Your task to perform on an android device: open app "Viber Messenger" (install if not already installed) and go to login screen Image 0: 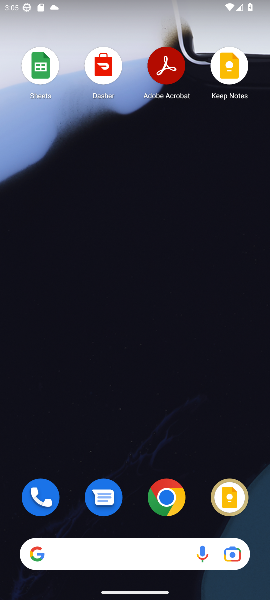
Step 0: drag from (86, 347) to (74, 97)
Your task to perform on an android device: open app "Viber Messenger" (install if not already installed) and go to login screen Image 1: 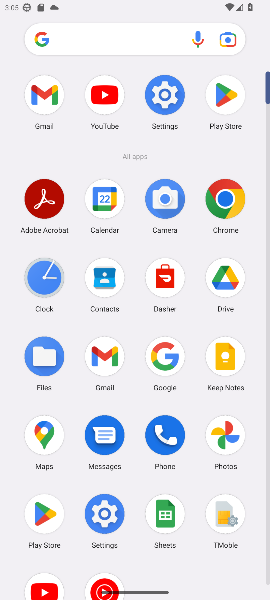
Step 1: click (43, 523)
Your task to perform on an android device: open app "Viber Messenger" (install if not already installed) and go to login screen Image 2: 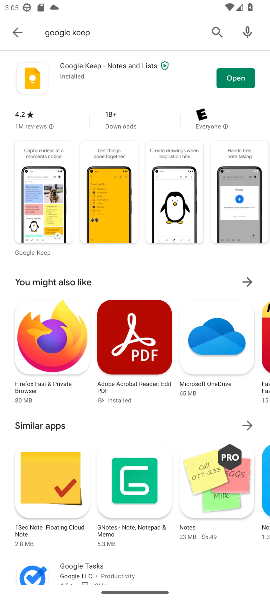
Step 2: click (15, 30)
Your task to perform on an android device: open app "Viber Messenger" (install if not already installed) and go to login screen Image 3: 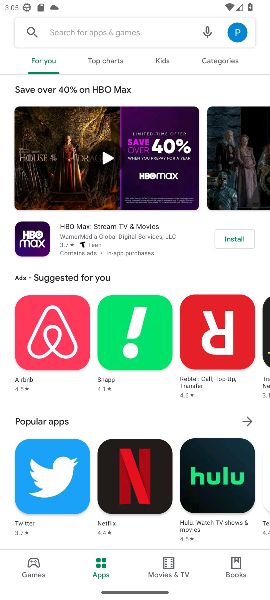
Step 3: click (132, 28)
Your task to perform on an android device: open app "Viber Messenger" (install if not already installed) and go to login screen Image 4: 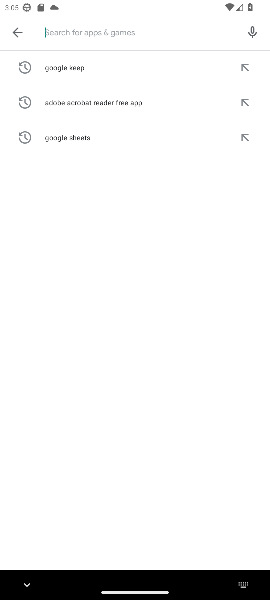
Step 4: type "Viber Messenger"
Your task to perform on an android device: open app "Viber Messenger" (install if not already installed) and go to login screen Image 5: 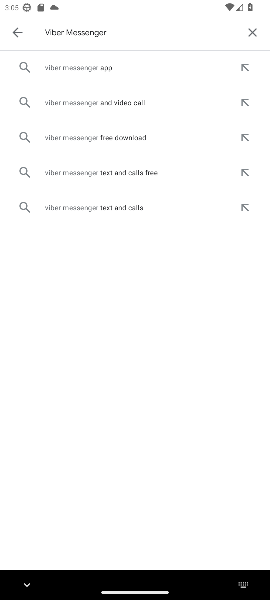
Step 5: click (125, 69)
Your task to perform on an android device: open app "Viber Messenger" (install if not already installed) and go to login screen Image 6: 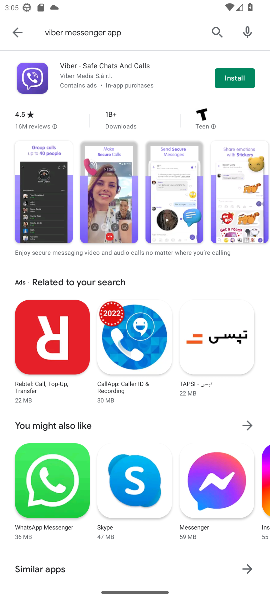
Step 6: click (232, 78)
Your task to perform on an android device: open app "Viber Messenger" (install if not already installed) and go to login screen Image 7: 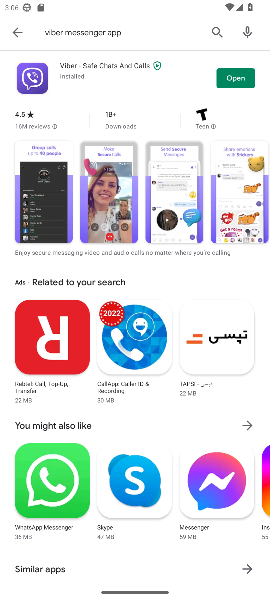
Step 7: click (239, 78)
Your task to perform on an android device: open app "Viber Messenger" (install if not already installed) and go to login screen Image 8: 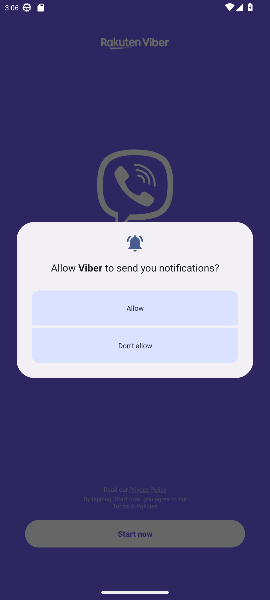
Step 8: click (148, 303)
Your task to perform on an android device: open app "Viber Messenger" (install if not already installed) and go to login screen Image 9: 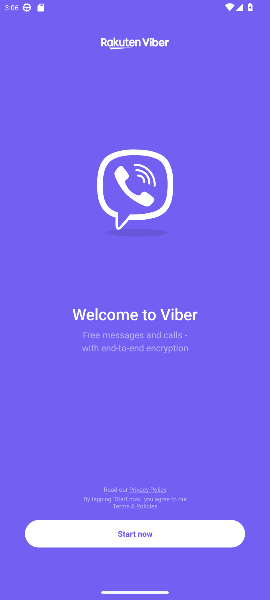
Step 9: task complete